Your task to perform on an android device: manage bookmarks in the chrome app Image 0: 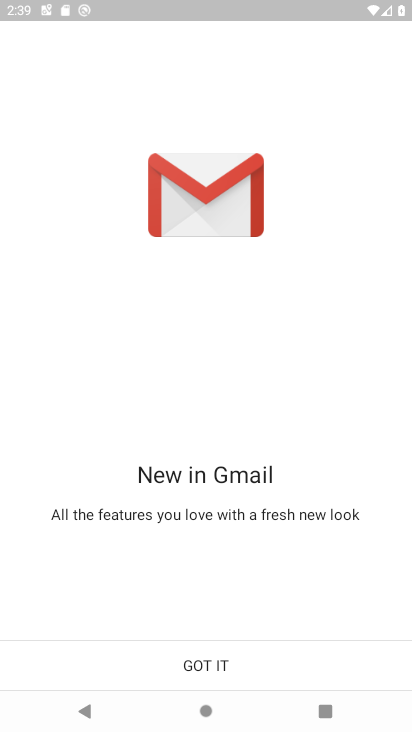
Step 0: press home button
Your task to perform on an android device: manage bookmarks in the chrome app Image 1: 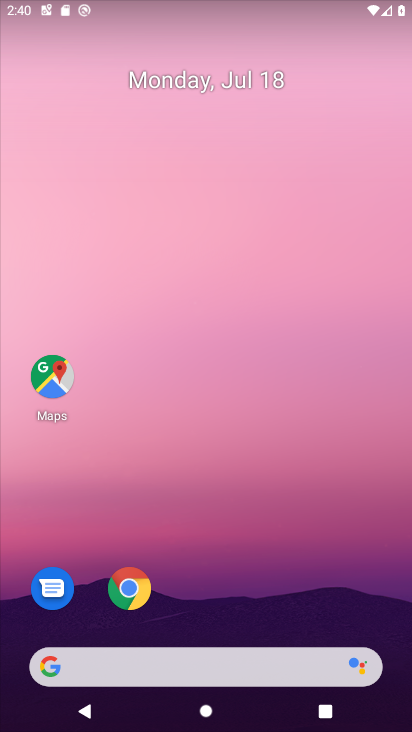
Step 1: drag from (302, 602) to (232, 178)
Your task to perform on an android device: manage bookmarks in the chrome app Image 2: 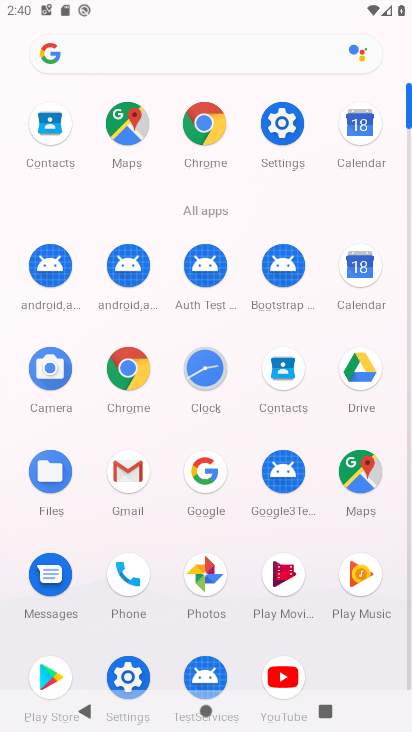
Step 2: click (121, 362)
Your task to perform on an android device: manage bookmarks in the chrome app Image 3: 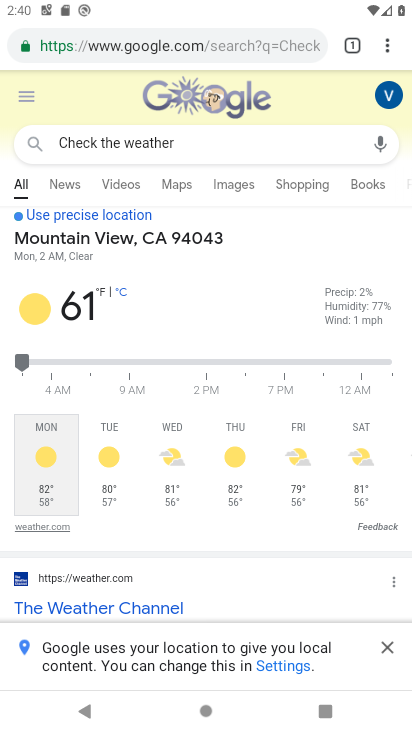
Step 3: click (391, 39)
Your task to perform on an android device: manage bookmarks in the chrome app Image 4: 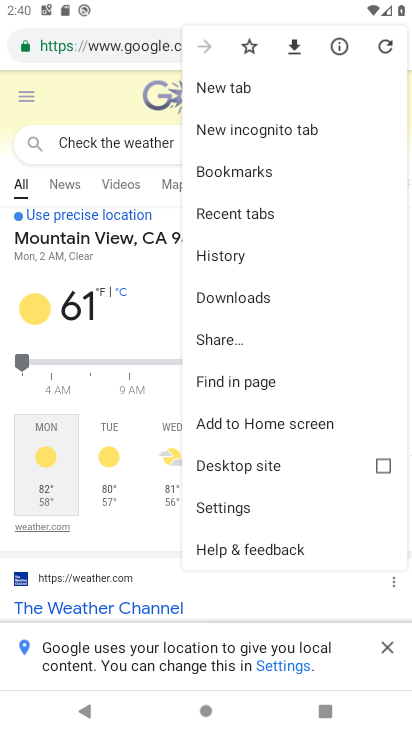
Step 4: click (279, 173)
Your task to perform on an android device: manage bookmarks in the chrome app Image 5: 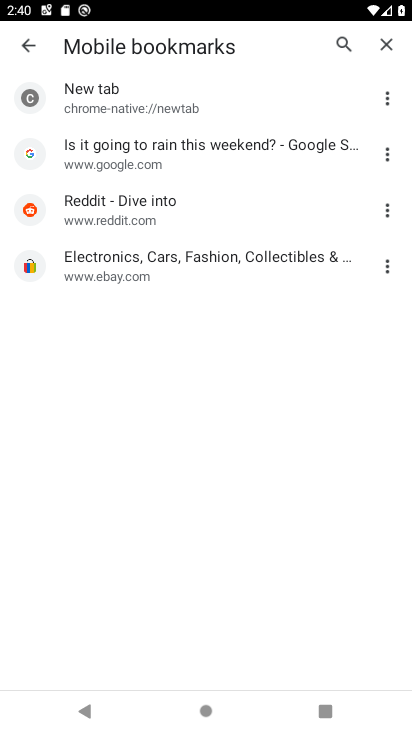
Step 5: click (224, 277)
Your task to perform on an android device: manage bookmarks in the chrome app Image 6: 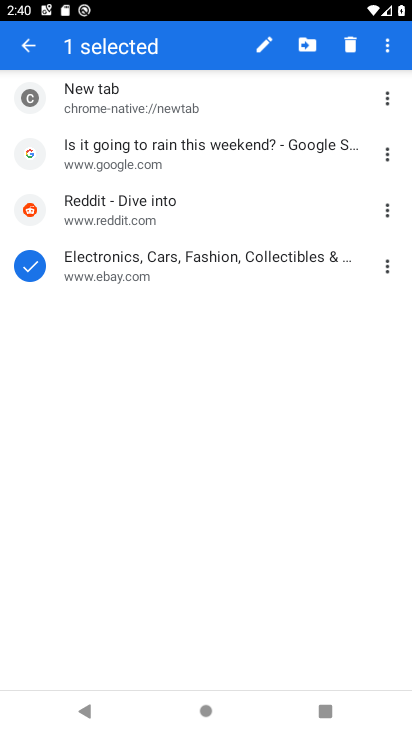
Step 6: click (300, 50)
Your task to perform on an android device: manage bookmarks in the chrome app Image 7: 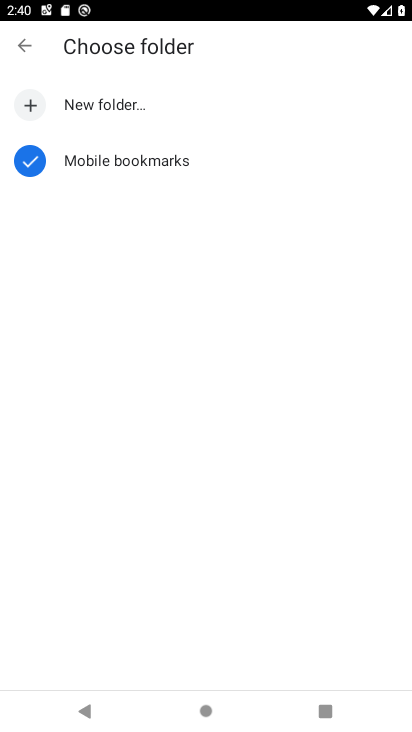
Step 7: click (234, 157)
Your task to perform on an android device: manage bookmarks in the chrome app Image 8: 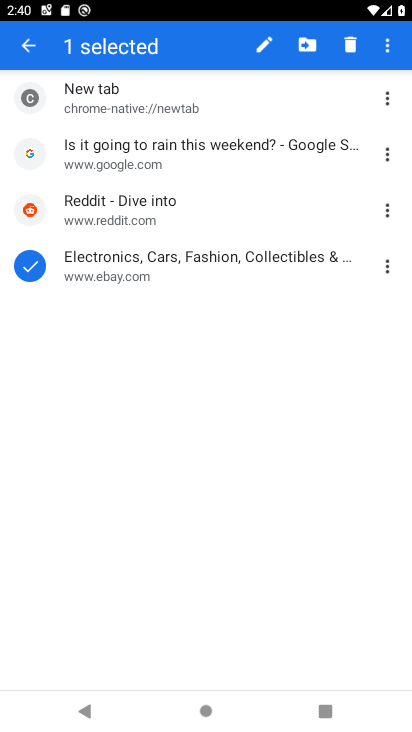
Step 8: task complete